Your task to perform on an android device: toggle airplane mode Image 0: 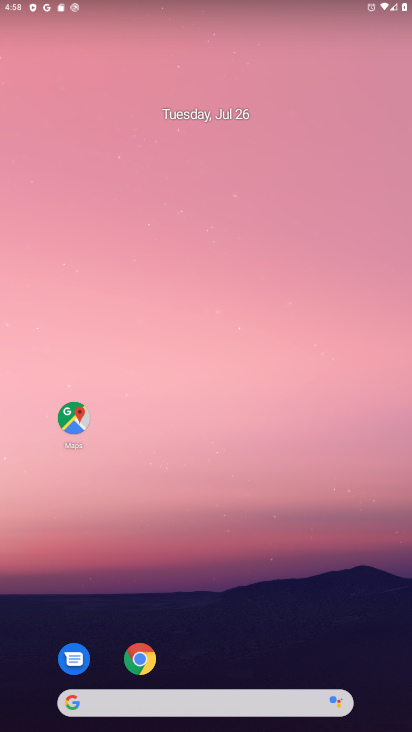
Step 0: drag from (210, 676) to (250, 29)
Your task to perform on an android device: toggle airplane mode Image 1: 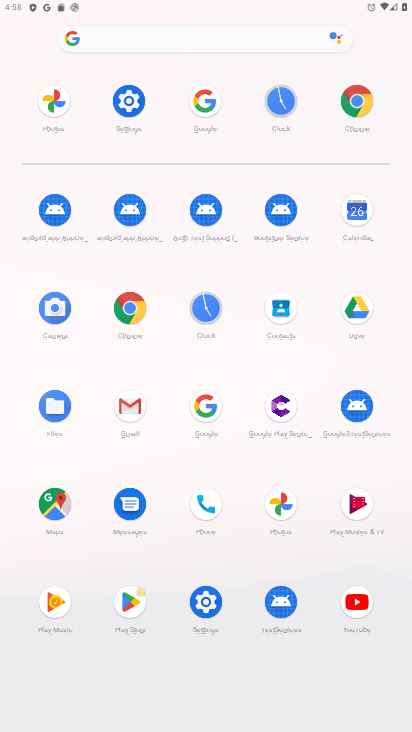
Step 1: drag from (300, 1) to (322, 472)
Your task to perform on an android device: toggle airplane mode Image 2: 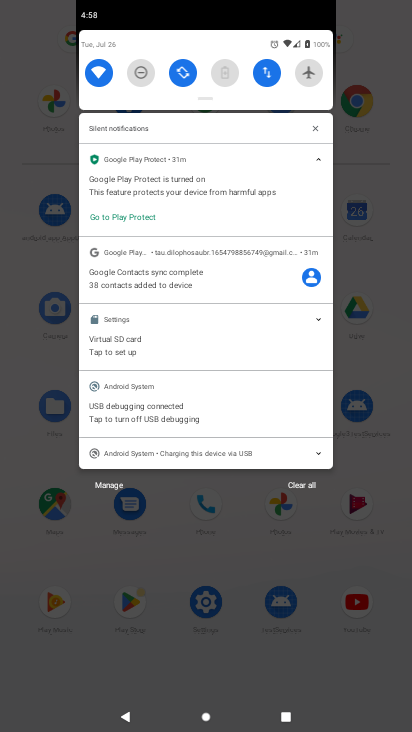
Step 2: click (304, 64)
Your task to perform on an android device: toggle airplane mode Image 3: 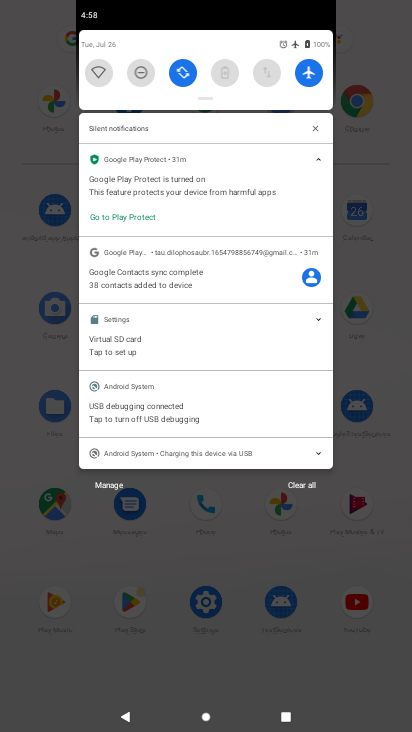
Step 3: task complete